Your task to perform on an android device: Show me productivity apps on the Play Store Image 0: 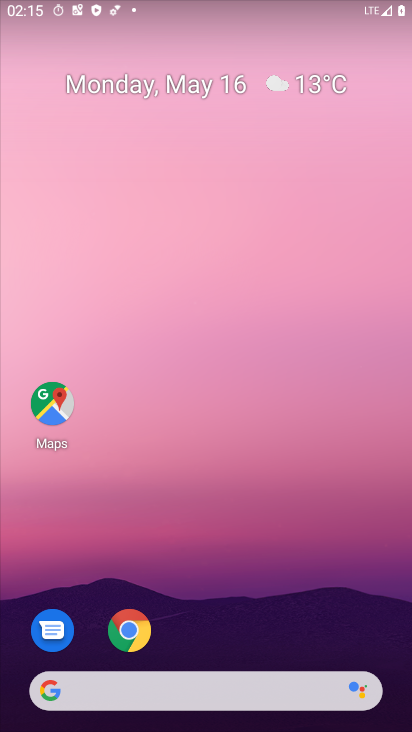
Step 0: drag from (337, 582) to (313, 154)
Your task to perform on an android device: Show me productivity apps on the Play Store Image 1: 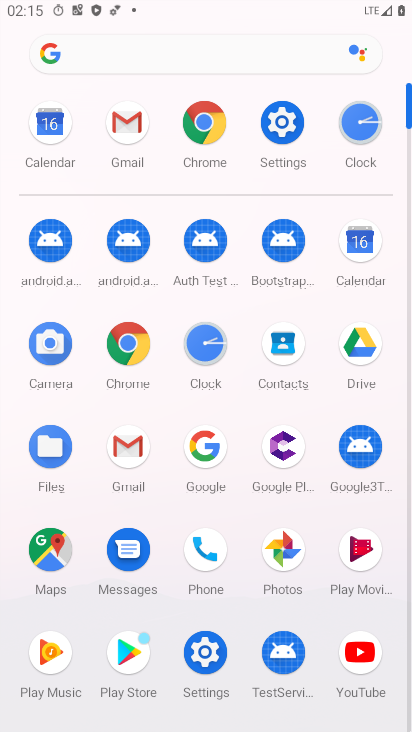
Step 1: click (143, 653)
Your task to perform on an android device: Show me productivity apps on the Play Store Image 2: 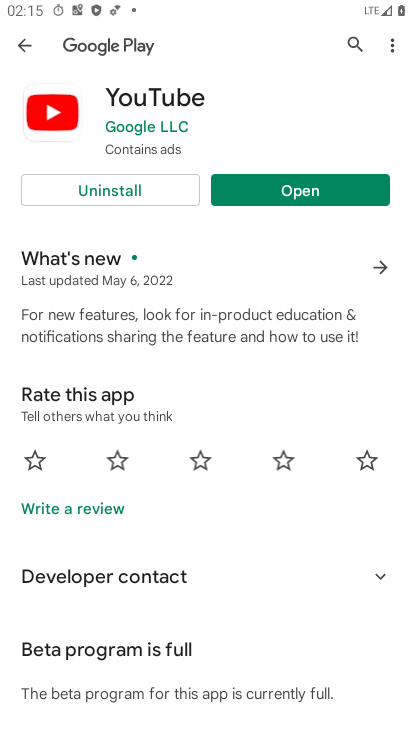
Step 2: click (13, 43)
Your task to perform on an android device: Show me productivity apps on the Play Store Image 3: 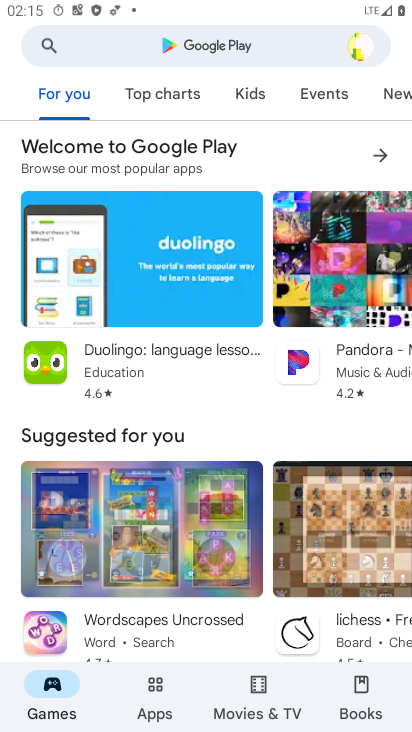
Step 3: click (154, 695)
Your task to perform on an android device: Show me productivity apps on the Play Store Image 4: 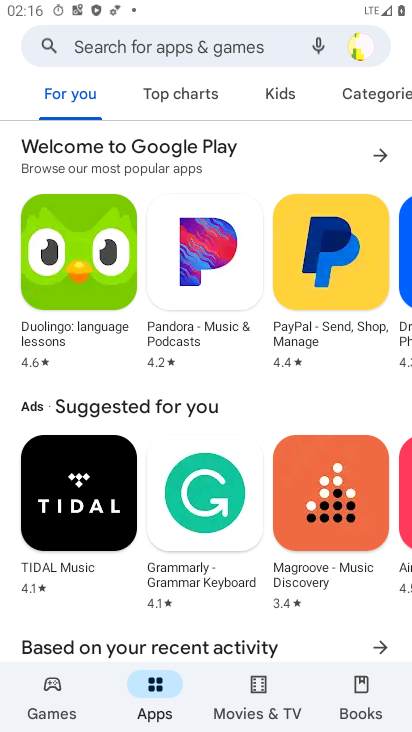
Step 4: click (379, 93)
Your task to perform on an android device: Show me productivity apps on the Play Store Image 5: 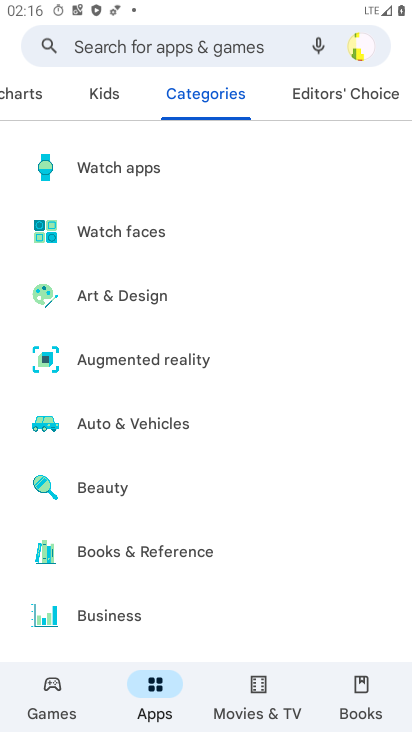
Step 5: drag from (208, 631) to (195, 250)
Your task to perform on an android device: Show me productivity apps on the Play Store Image 6: 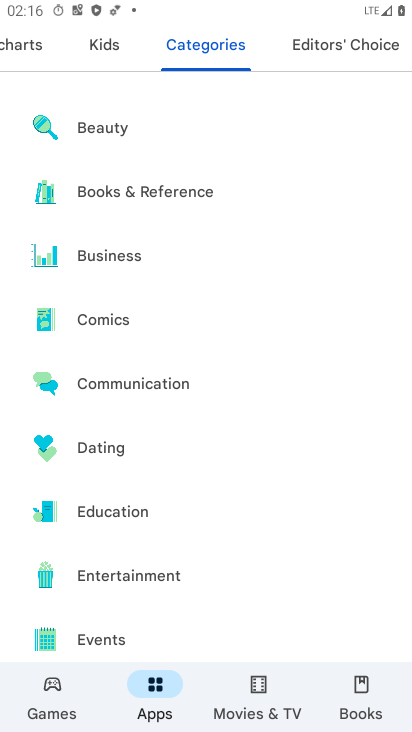
Step 6: drag from (240, 611) to (274, 237)
Your task to perform on an android device: Show me productivity apps on the Play Store Image 7: 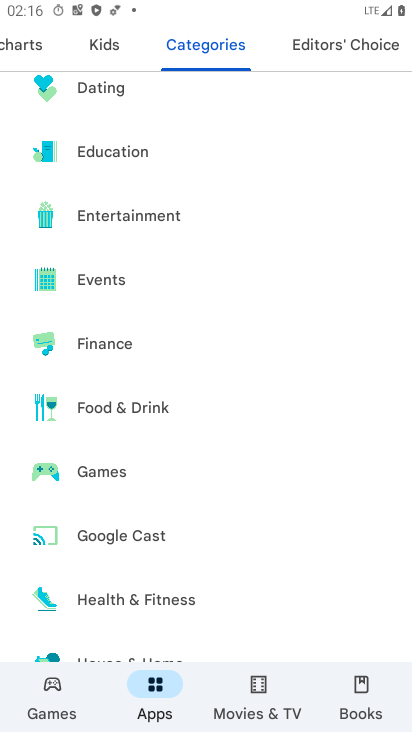
Step 7: drag from (285, 592) to (262, 208)
Your task to perform on an android device: Show me productivity apps on the Play Store Image 8: 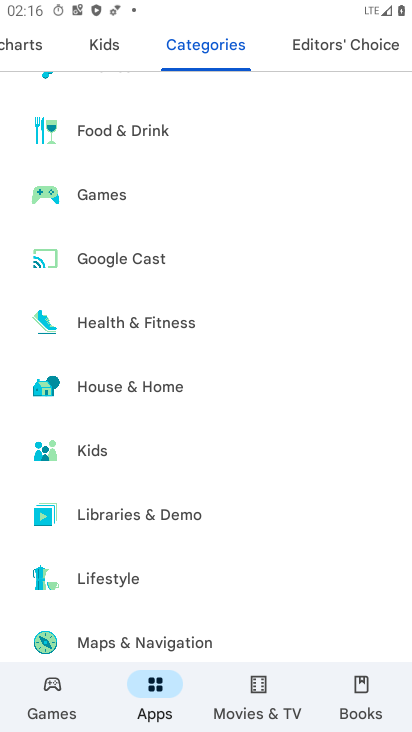
Step 8: drag from (281, 583) to (271, 237)
Your task to perform on an android device: Show me productivity apps on the Play Store Image 9: 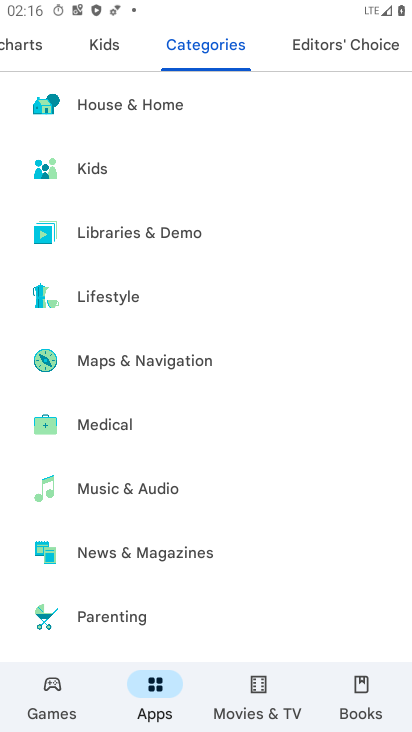
Step 9: drag from (268, 588) to (262, 244)
Your task to perform on an android device: Show me productivity apps on the Play Store Image 10: 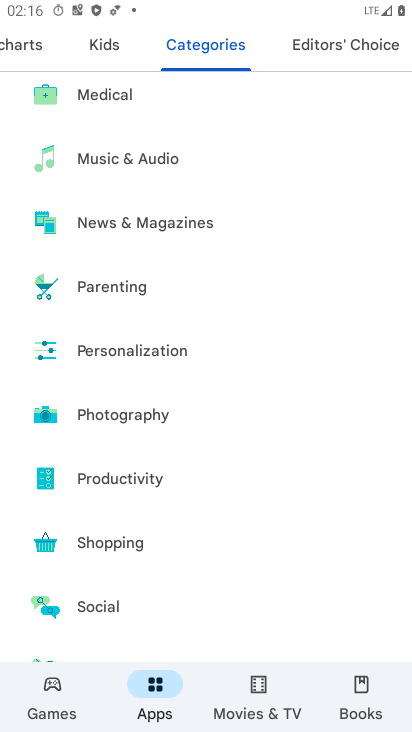
Step 10: click (144, 483)
Your task to perform on an android device: Show me productivity apps on the Play Store Image 11: 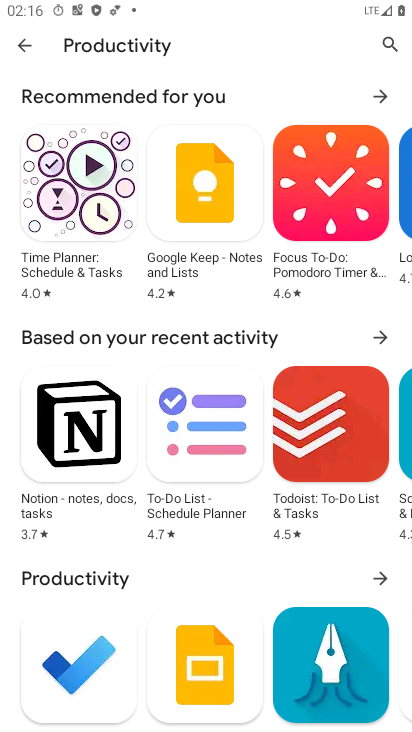
Step 11: task complete